Your task to perform on an android device: change timer sound Image 0: 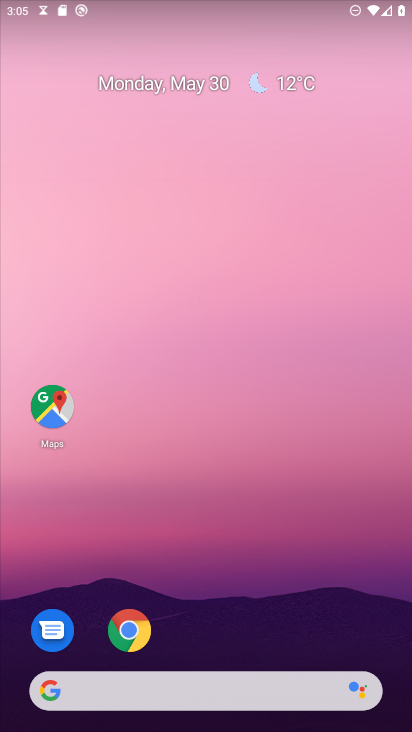
Step 0: drag from (146, 695) to (270, 21)
Your task to perform on an android device: change timer sound Image 1: 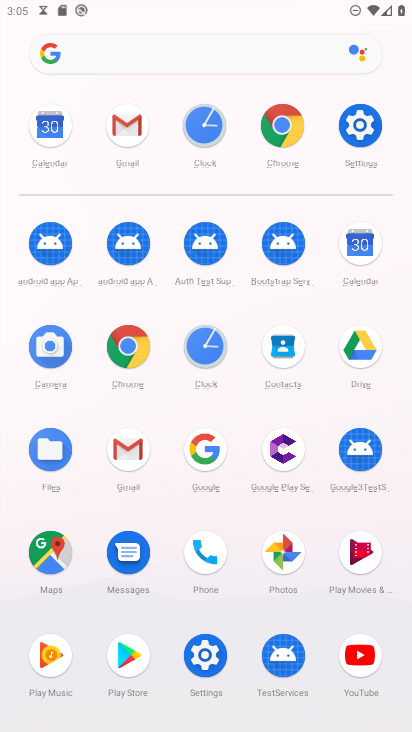
Step 1: click (199, 366)
Your task to perform on an android device: change timer sound Image 2: 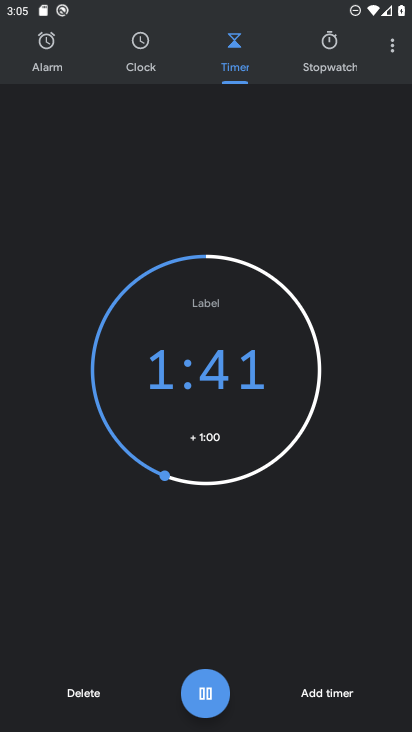
Step 2: click (386, 53)
Your task to perform on an android device: change timer sound Image 3: 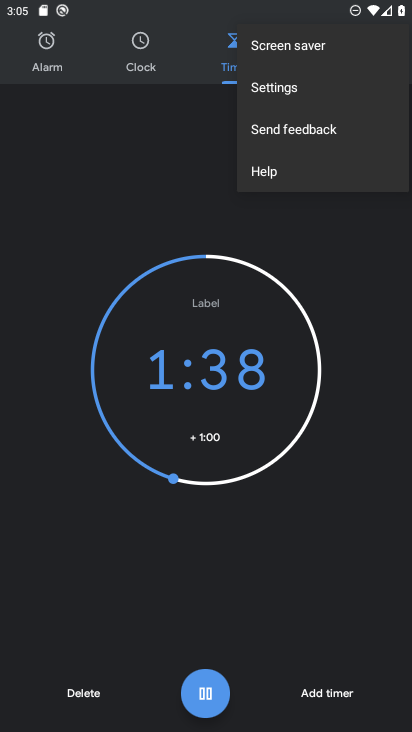
Step 3: click (303, 84)
Your task to perform on an android device: change timer sound Image 4: 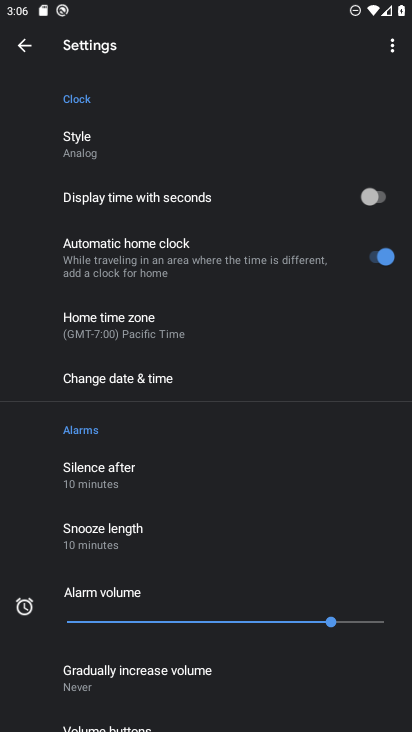
Step 4: drag from (191, 533) to (221, 116)
Your task to perform on an android device: change timer sound Image 5: 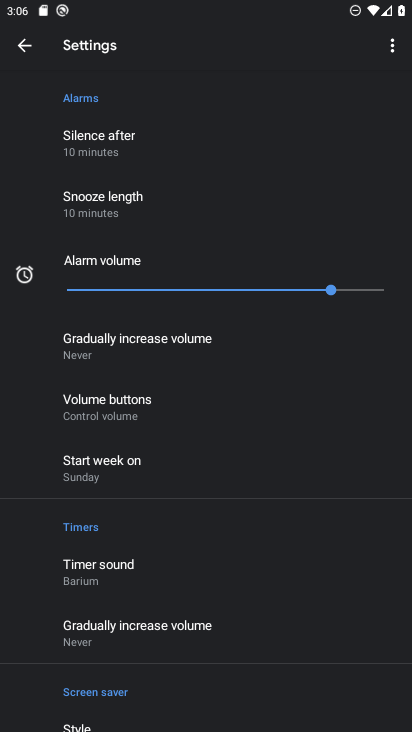
Step 5: click (121, 579)
Your task to perform on an android device: change timer sound Image 6: 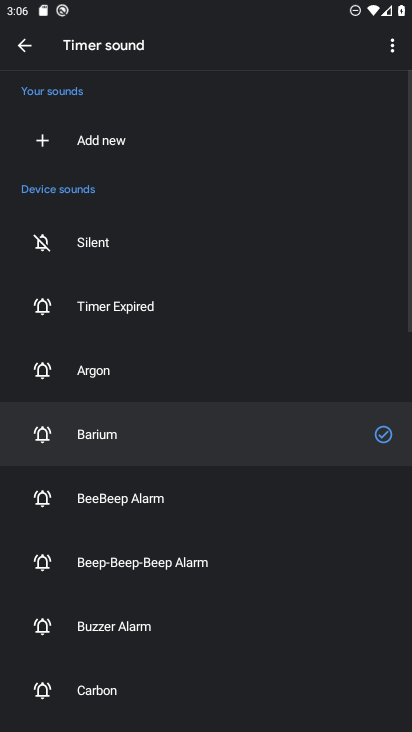
Step 6: click (119, 692)
Your task to perform on an android device: change timer sound Image 7: 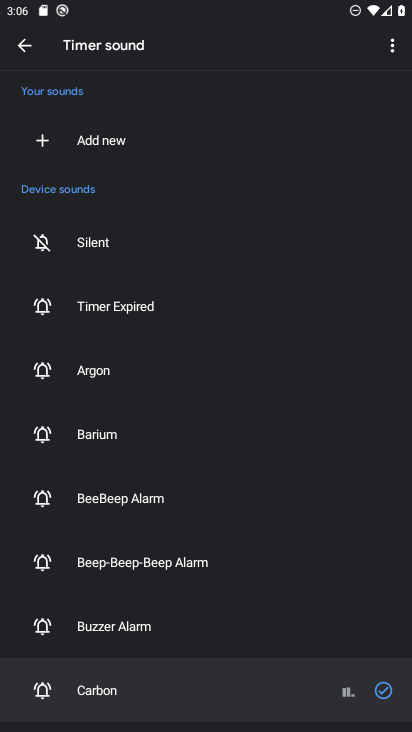
Step 7: task complete